Your task to perform on an android device: Open eBay Image 0: 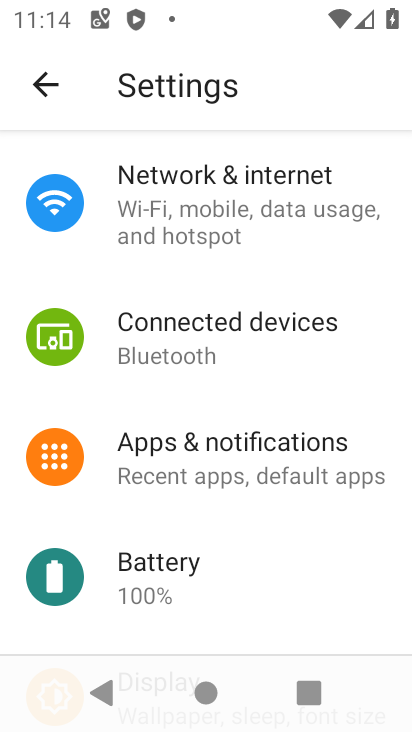
Step 0: press home button
Your task to perform on an android device: Open eBay Image 1: 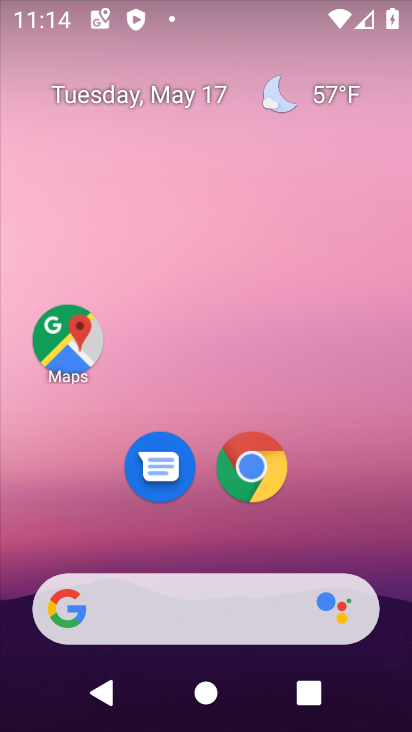
Step 1: drag from (226, 655) to (277, 188)
Your task to perform on an android device: Open eBay Image 2: 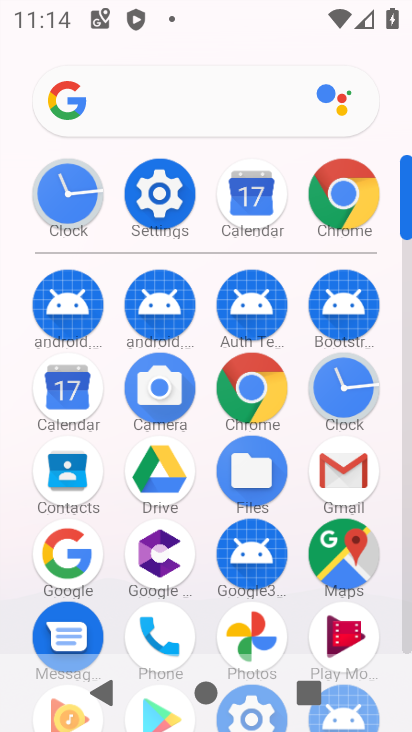
Step 2: click (326, 222)
Your task to perform on an android device: Open eBay Image 3: 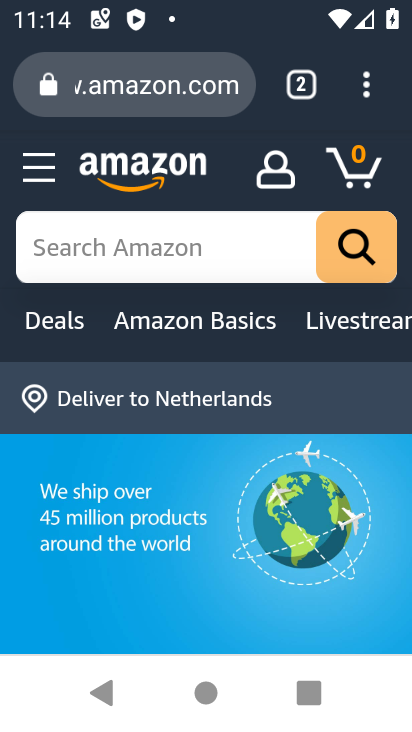
Step 3: click (132, 82)
Your task to perform on an android device: Open eBay Image 4: 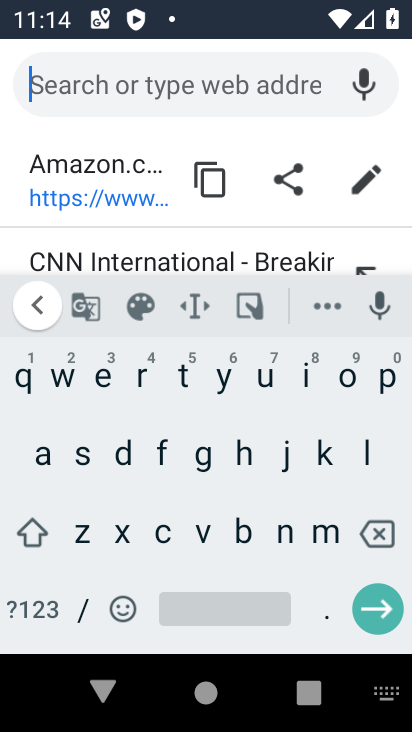
Step 4: click (104, 375)
Your task to perform on an android device: Open eBay Image 5: 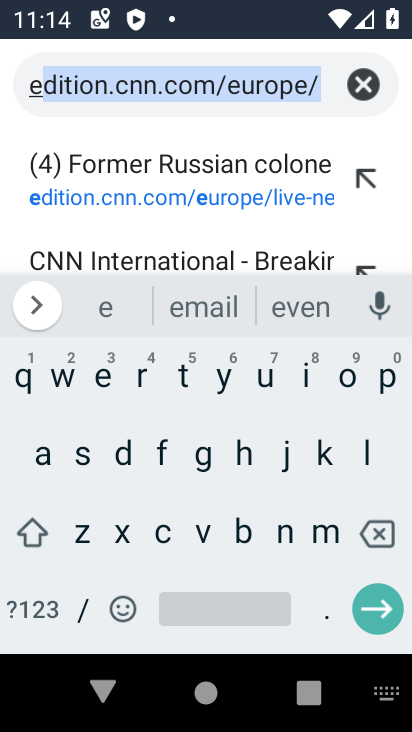
Step 5: click (240, 534)
Your task to perform on an android device: Open eBay Image 6: 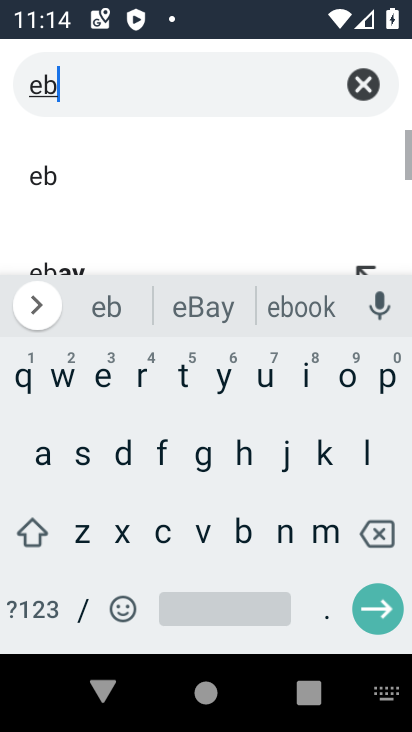
Step 6: click (38, 466)
Your task to perform on an android device: Open eBay Image 7: 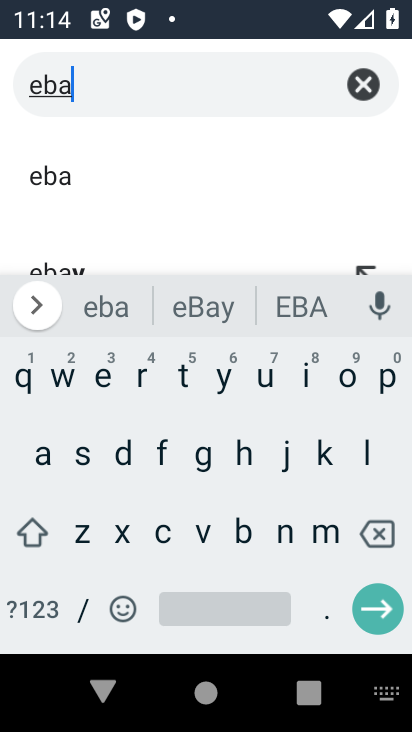
Step 7: click (221, 388)
Your task to perform on an android device: Open eBay Image 8: 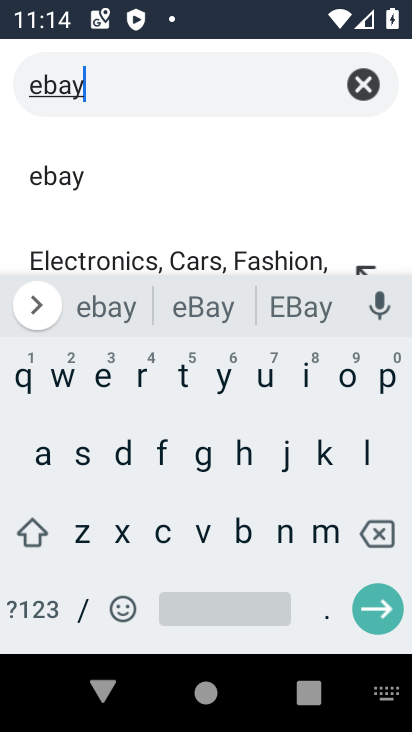
Step 8: click (108, 186)
Your task to perform on an android device: Open eBay Image 9: 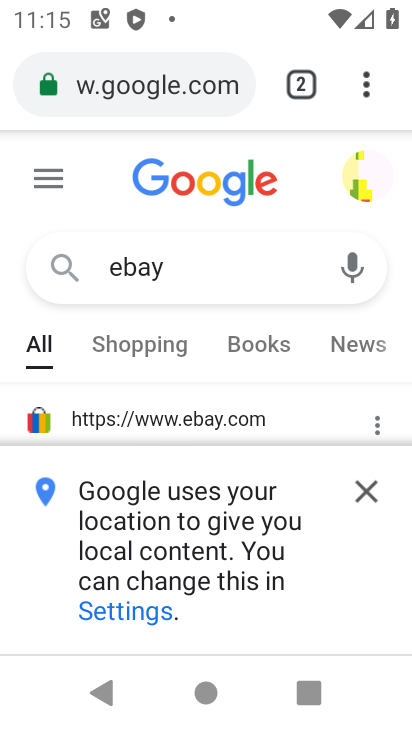
Step 9: click (369, 492)
Your task to perform on an android device: Open eBay Image 10: 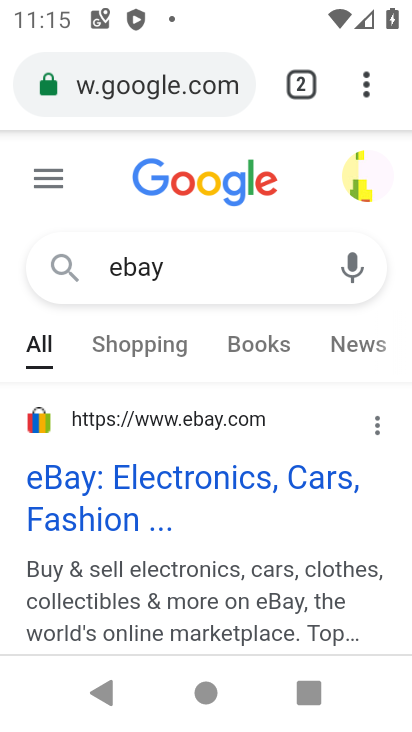
Step 10: click (89, 480)
Your task to perform on an android device: Open eBay Image 11: 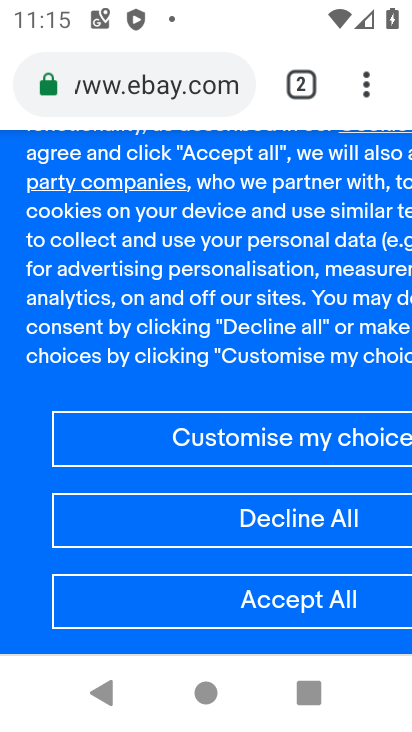
Step 11: click (231, 603)
Your task to perform on an android device: Open eBay Image 12: 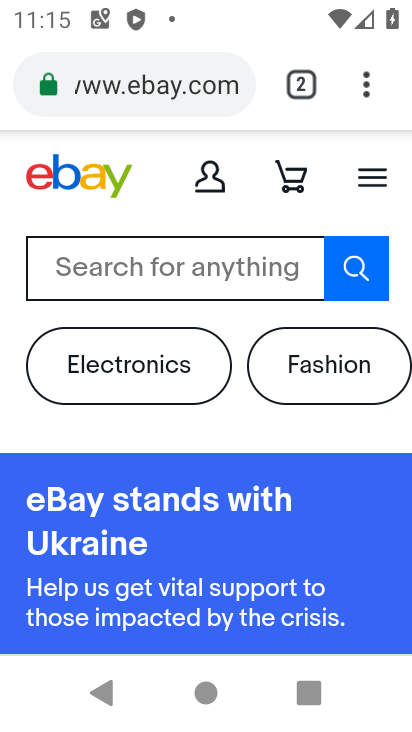
Step 12: task complete